Your task to perform on an android device: Open internet settings Image 0: 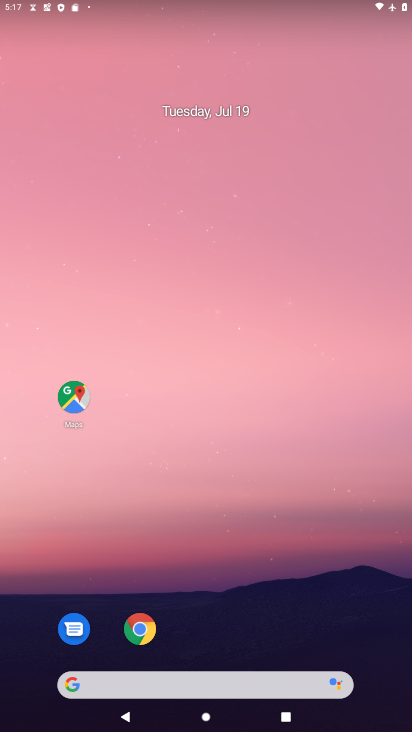
Step 0: drag from (232, 630) to (234, 143)
Your task to perform on an android device: Open internet settings Image 1: 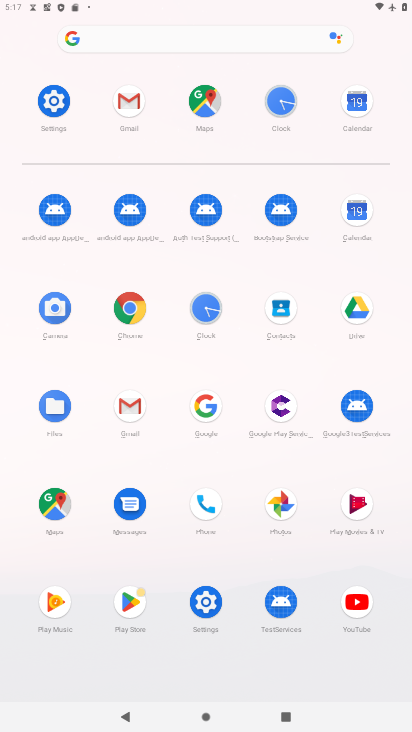
Step 1: click (47, 108)
Your task to perform on an android device: Open internet settings Image 2: 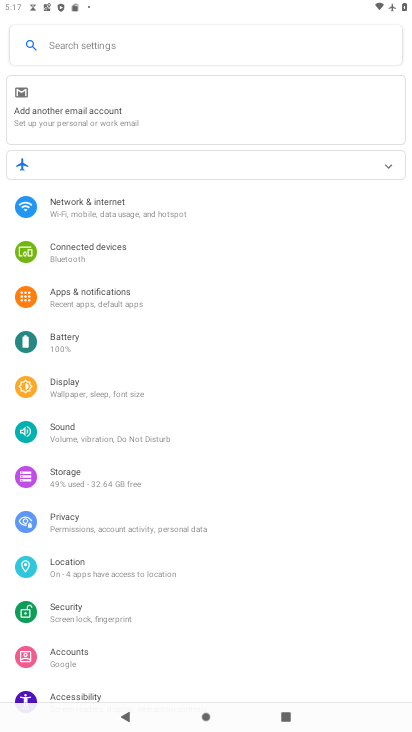
Step 2: click (96, 215)
Your task to perform on an android device: Open internet settings Image 3: 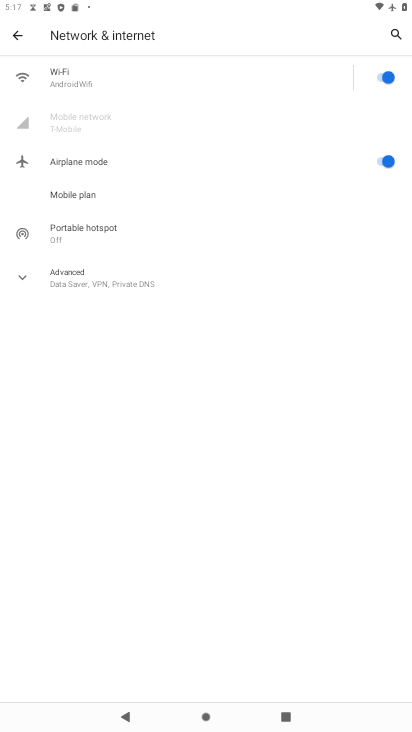
Step 3: task complete